Your task to perform on an android device: turn off priority inbox in the gmail app Image 0: 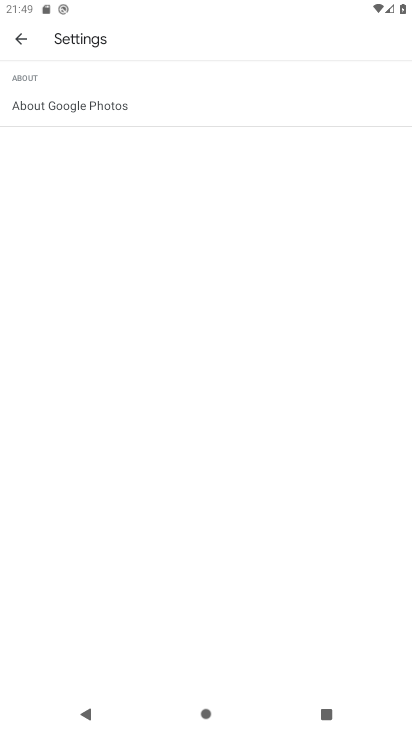
Step 0: press home button
Your task to perform on an android device: turn off priority inbox in the gmail app Image 1: 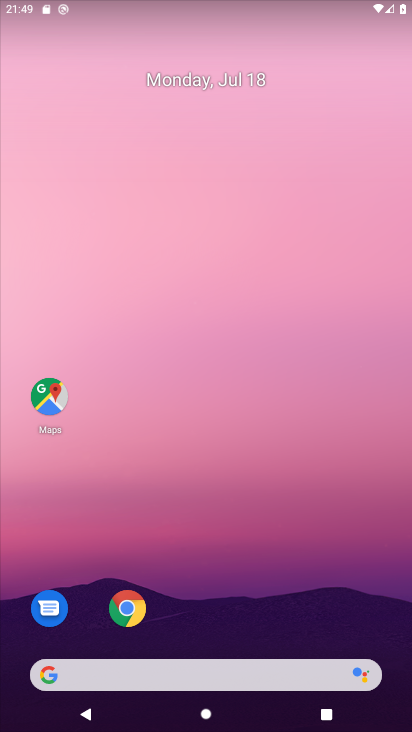
Step 1: drag from (213, 603) to (218, 272)
Your task to perform on an android device: turn off priority inbox in the gmail app Image 2: 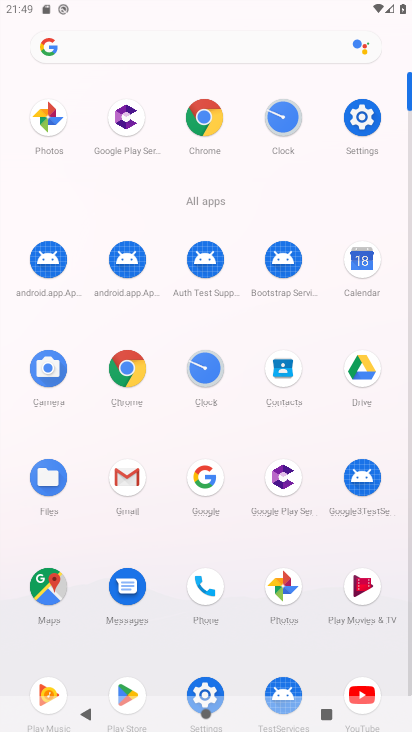
Step 2: click (120, 482)
Your task to perform on an android device: turn off priority inbox in the gmail app Image 3: 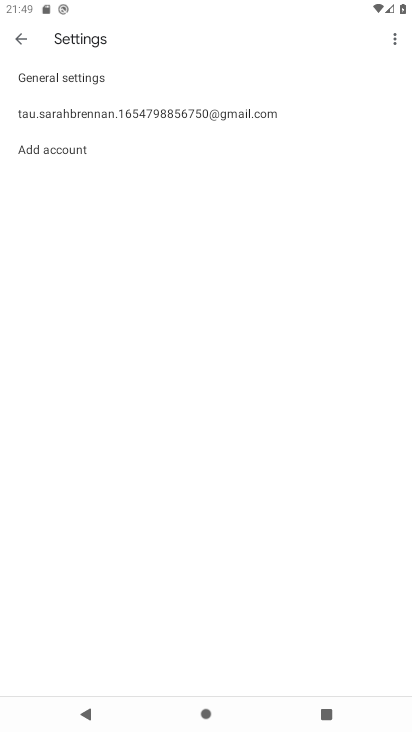
Step 3: click (245, 110)
Your task to perform on an android device: turn off priority inbox in the gmail app Image 4: 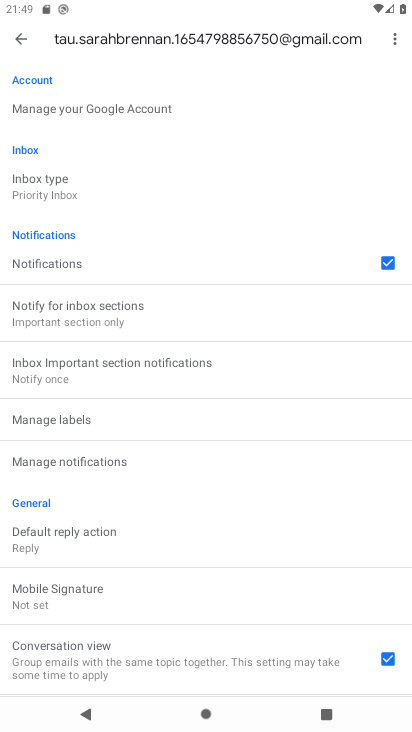
Step 4: click (119, 184)
Your task to perform on an android device: turn off priority inbox in the gmail app Image 5: 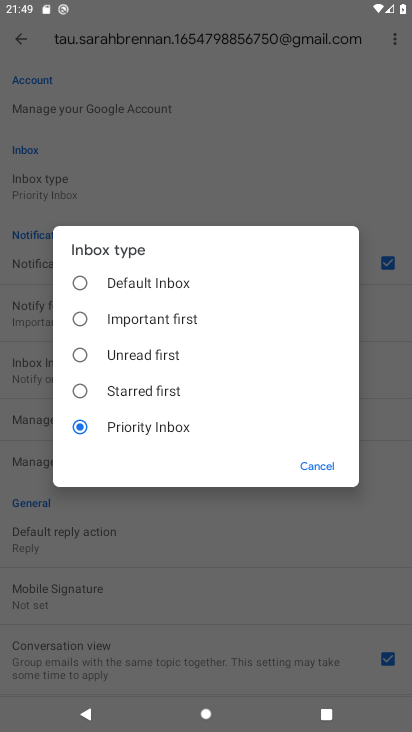
Step 5: task complete